Your task to perform on an android device: Add razer blackwidow to the cart on walmart.com Image 0: 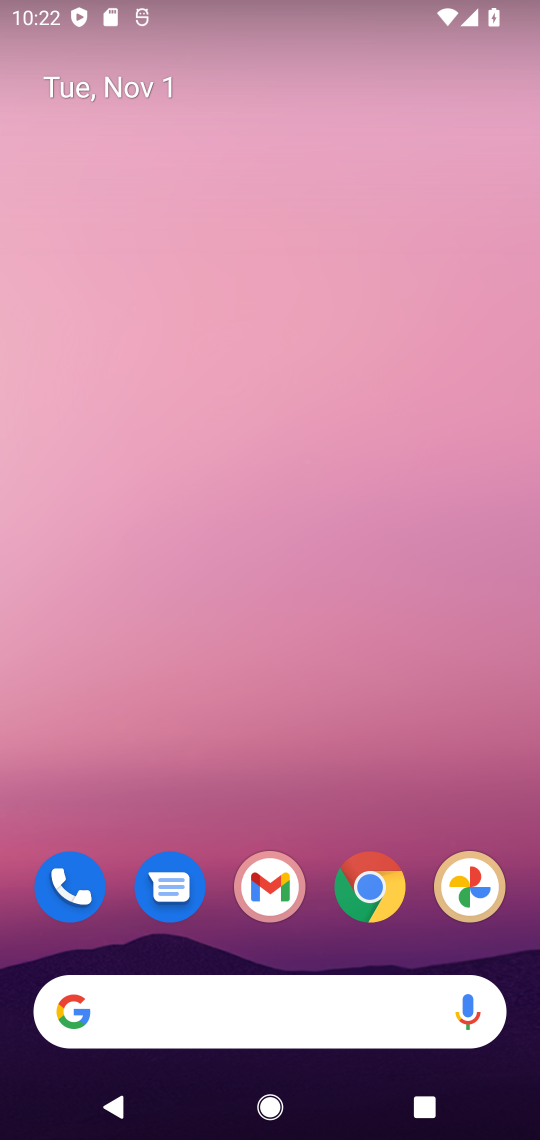
Step 0: click (369, 880)
Your task to perform on an android device: Add razer blackwidow to the cart on walmart.com Image 1: 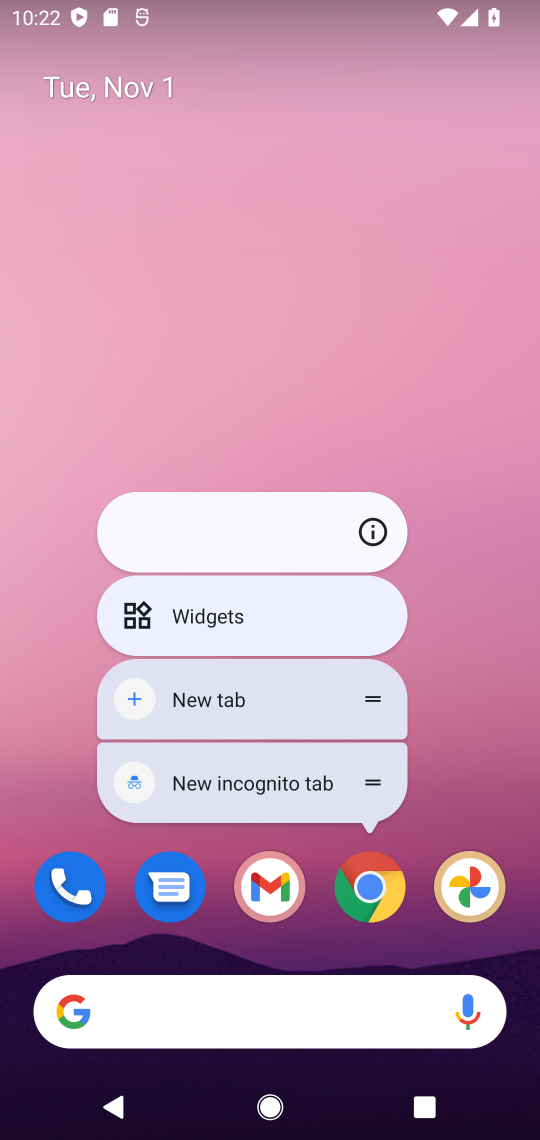
Step 1: click (377, 867)
Your task to perform on an android device: Add razer blackwidow to the cart on walmart.com Image 2: 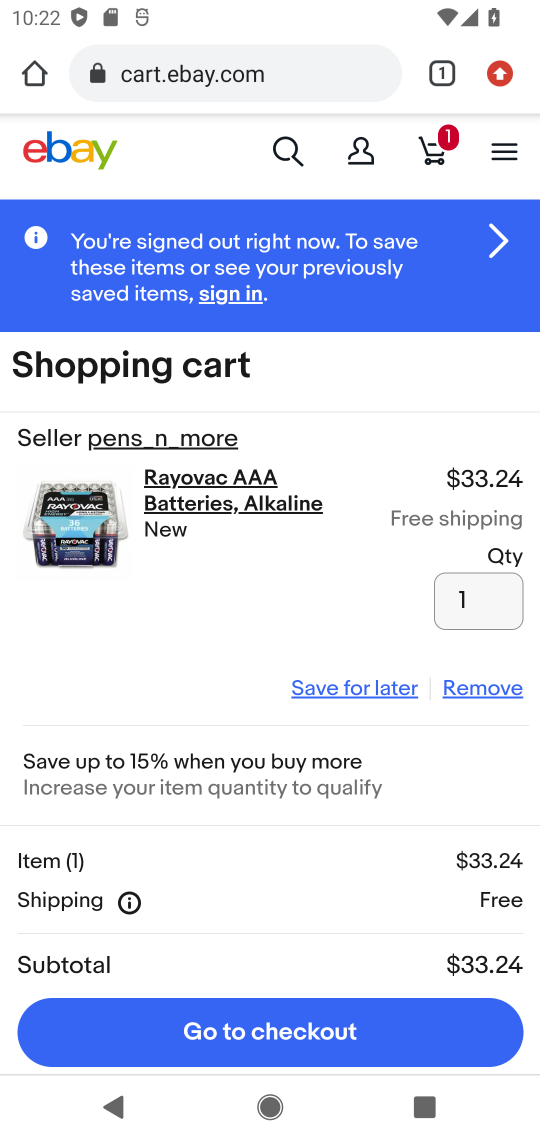
Step 2: click (308, 67)
Your task to perform on an android device: Add razer blackwidow to the cart on walmart.com Image 3: 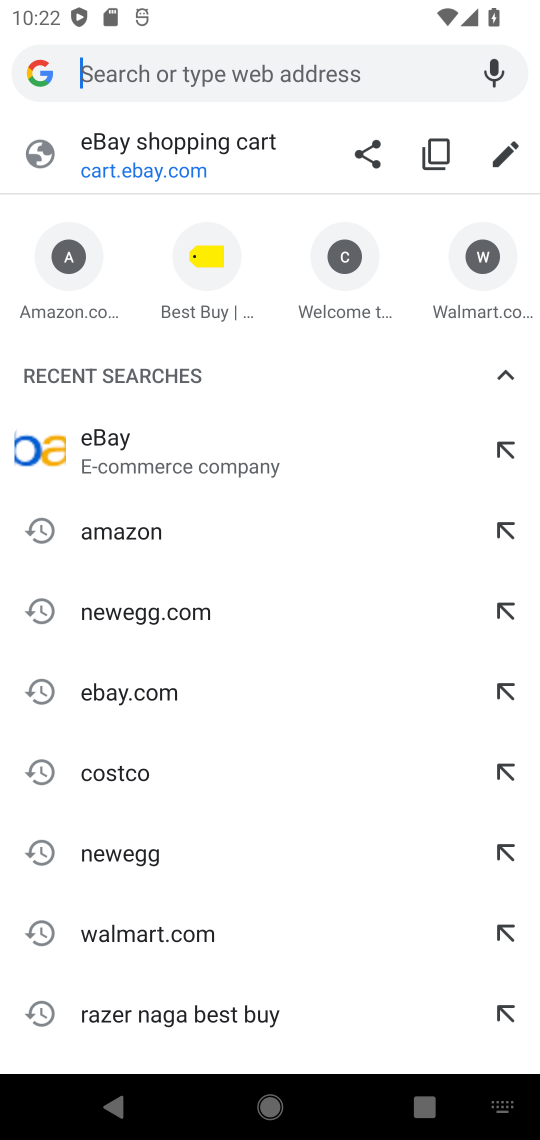
Step 3: click (160, 933)
Your task to perform on an android device: Add razer blackwidow to the cart on walmart.com Image 4: 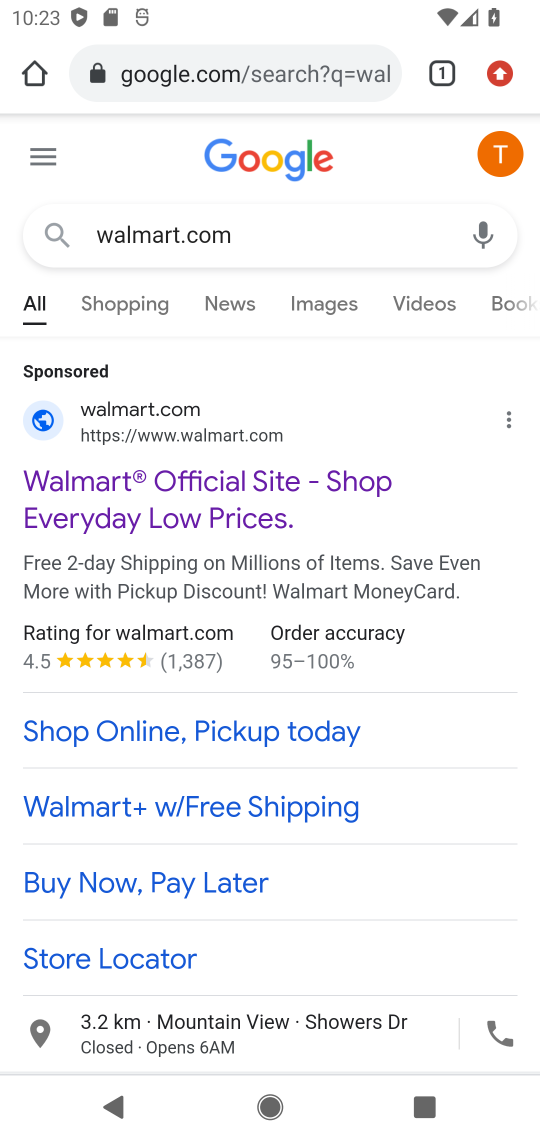
Step 4: click (254, 472)
Your task to perform on an android device: Add razer blackwidow to the cart on walmart.com Image 5: 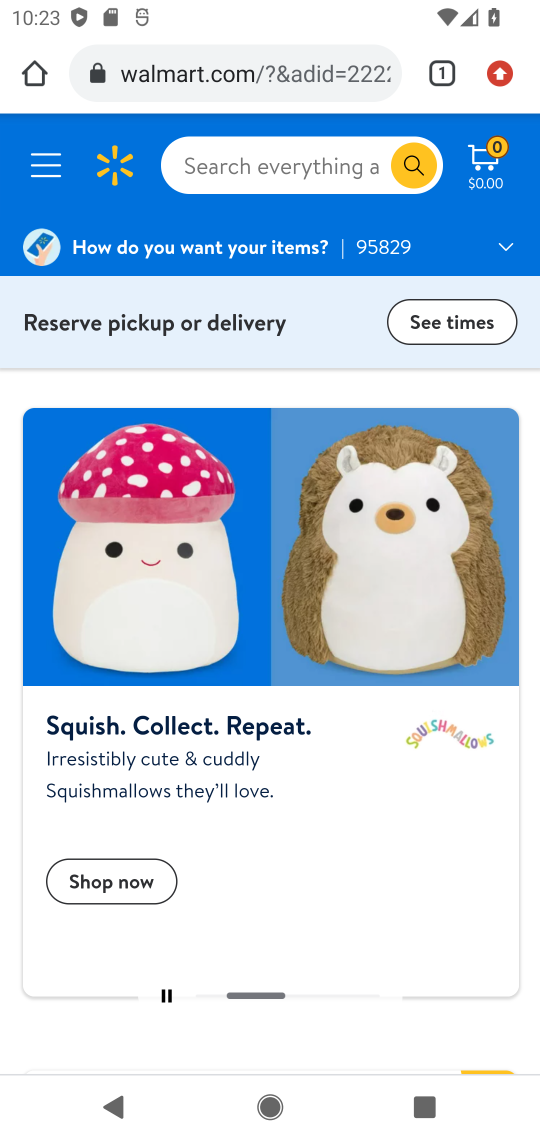
Step 5: click (305, 172)
Your task to perform on an android device: Add razer blackwidow to the cart on walmart.com Image 6: 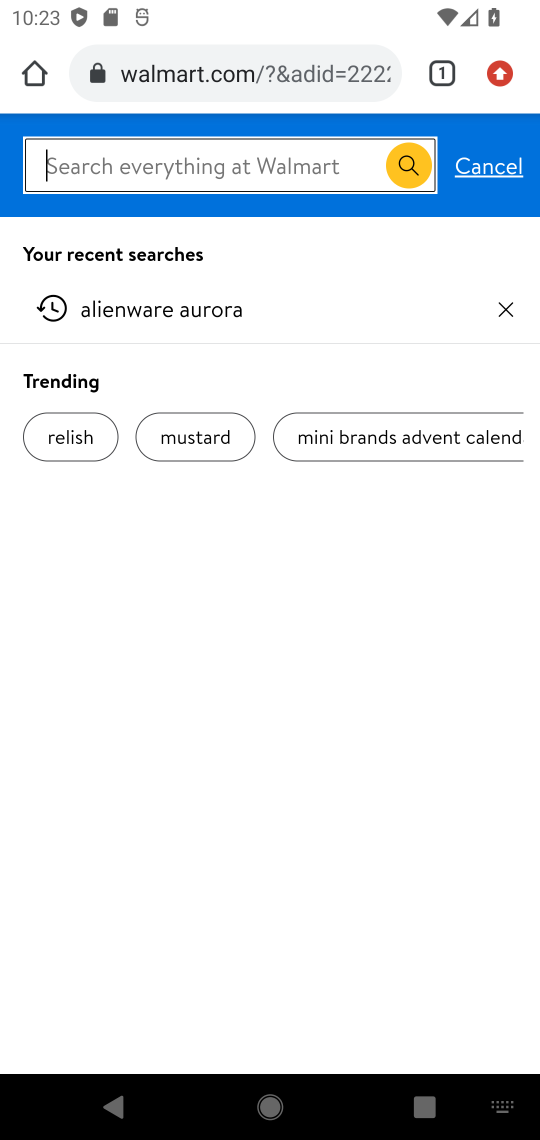
Step 6: type "razer blackwidow"
Your task to perform on an android device: Add razer blackwidow to the cart on walmart.com Image 7: 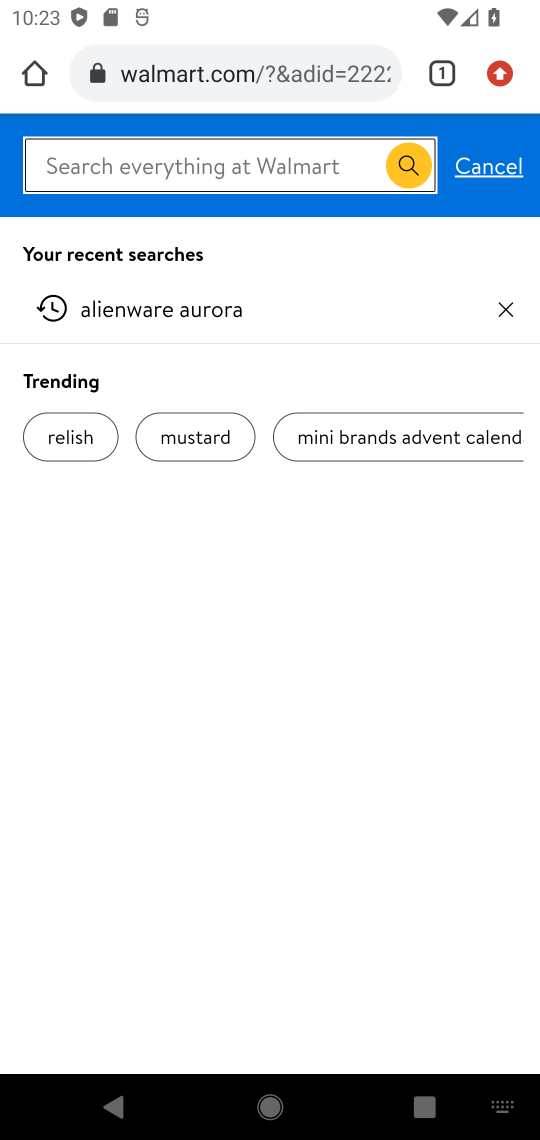
Step 7: press enter
Your task to perform on an android device: Add razer blackwidow to the cart on walmart.com Image 8: 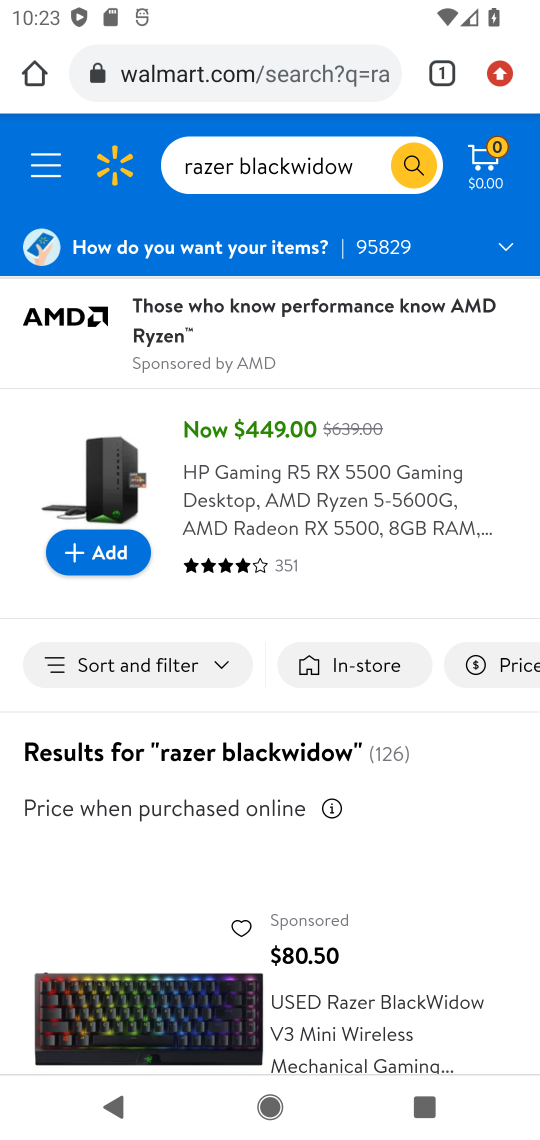
Step 8: click (50, 474)
Your task to perform on an android device: Add razer blackwidow to the cart on walmart.com Image 9: 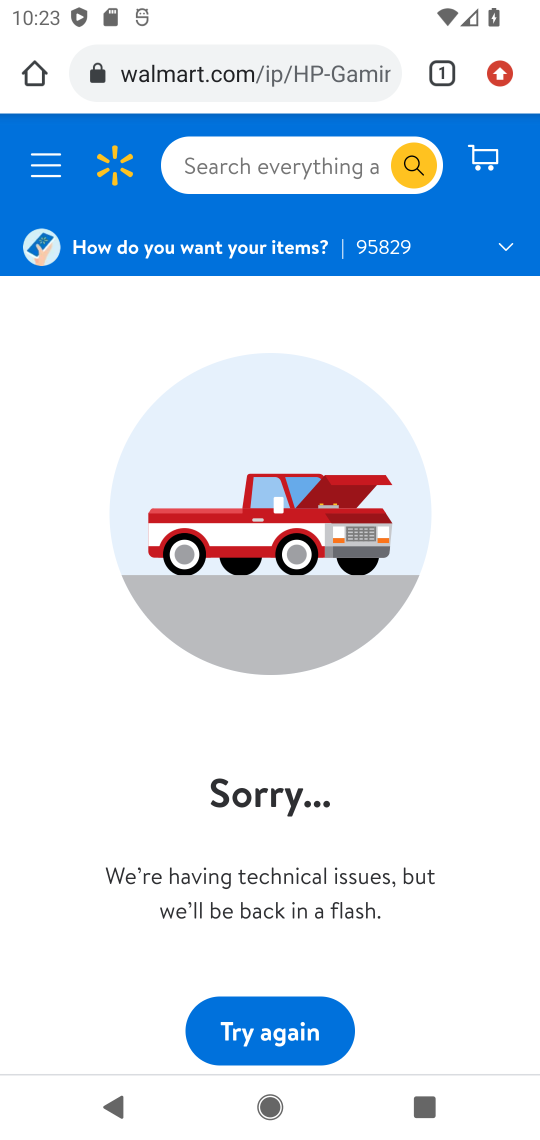
Step 9: press back button
Your task to perform on an android device: Add razer blackwidow to the cart on walmart.com Image 10: 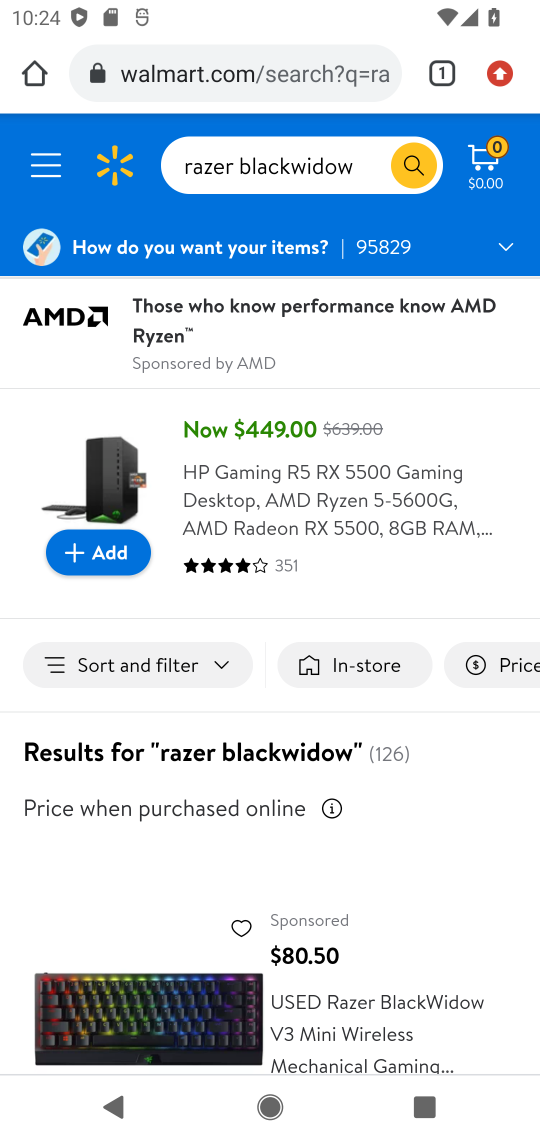
Step 10: click (374, 1017)
Your task to perform on an android device: Add razer blackwidow to the cart on walmart.com Image 11: 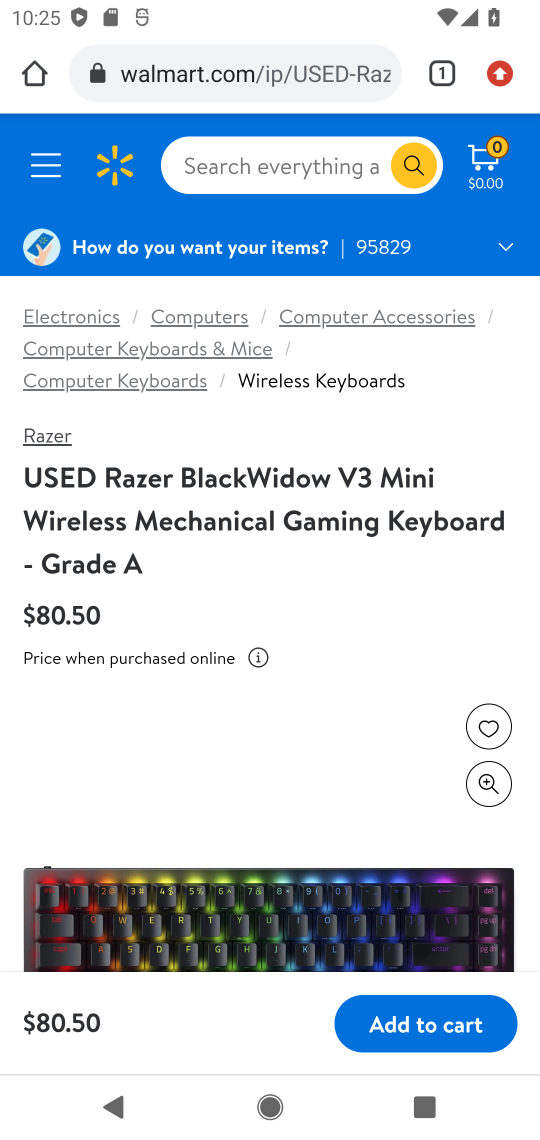
Step 11: click (417, 1028)
Your task to perform on an android device: Add razer blackwidow to the cart on walmart.com Image 12: 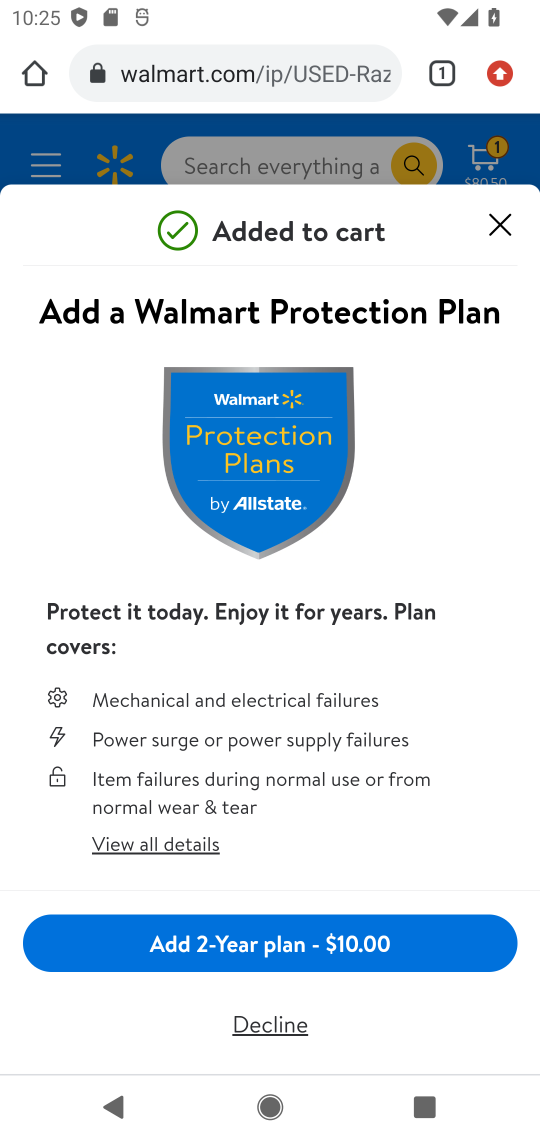
Step 12: task complete